Your task to perform on an android device: Search for Mexican restaurants on Maps Image 0: 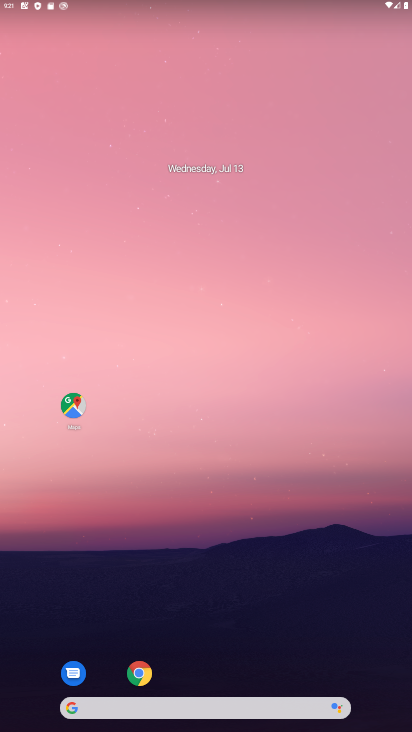
Step 0: click (77, 410)
Your task to perform on an android device: Search for Mexican restaurants on Maps Image 1: 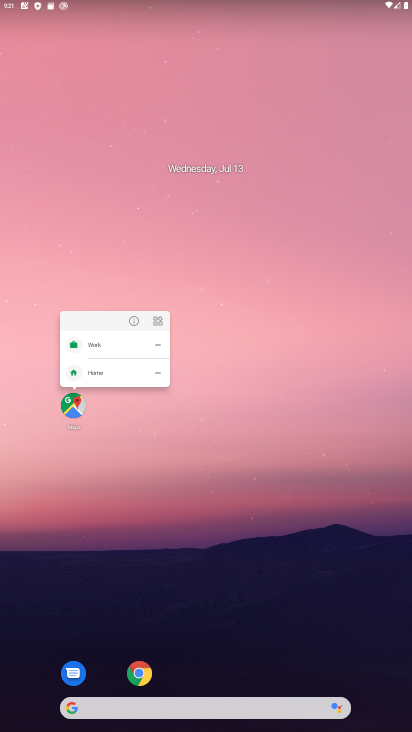
Step 1: click (102, 375)
Your task to perform on an android device: Search for Mexican restaurants on Maps Image 2: 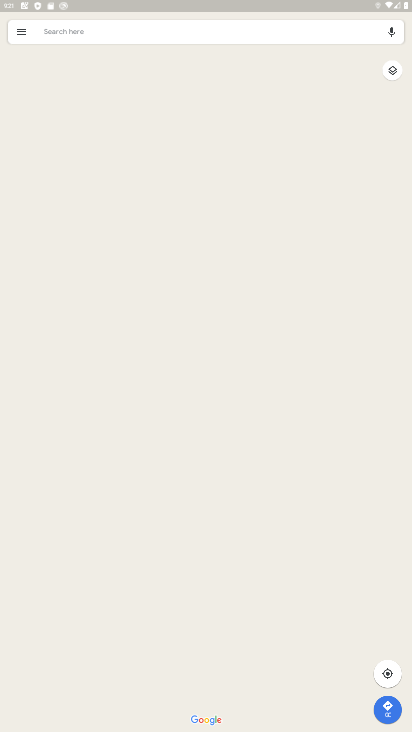
Step 2: click (140, 31)
Your task to perform on an android device: Search for Mexican restaurants on Maps Image 3: 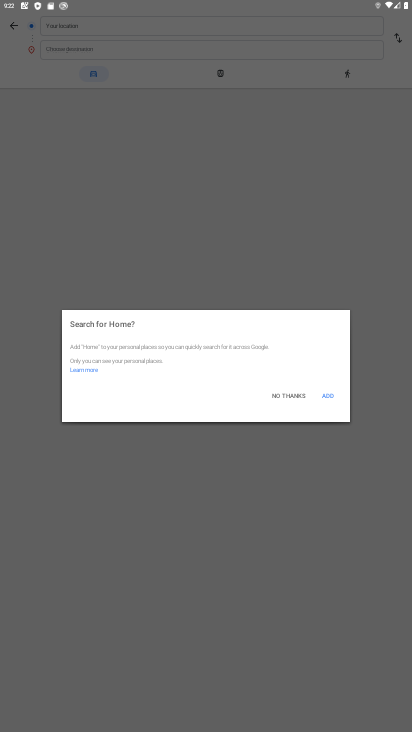
Step 3: click (298, 393)
Your task to perform on an android device: Search for Mexican restaurants on Maps Image 4: 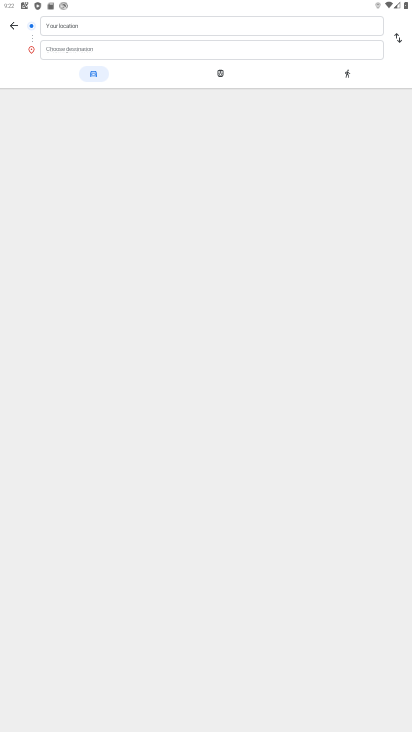
Step 4: click (15, 31)
Your task to perform on an android device: Search for Mexican restaurants on Maps Image 5: 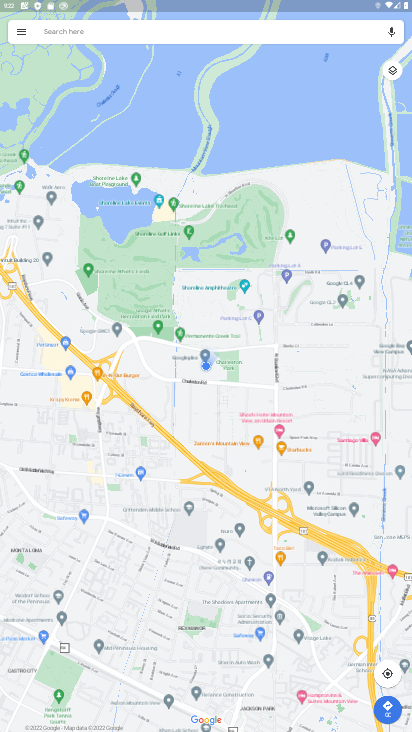
Step 5: click (209, 39)
Your task to perform on an android device: Search for Mexican restaurants on Maps Image 6: 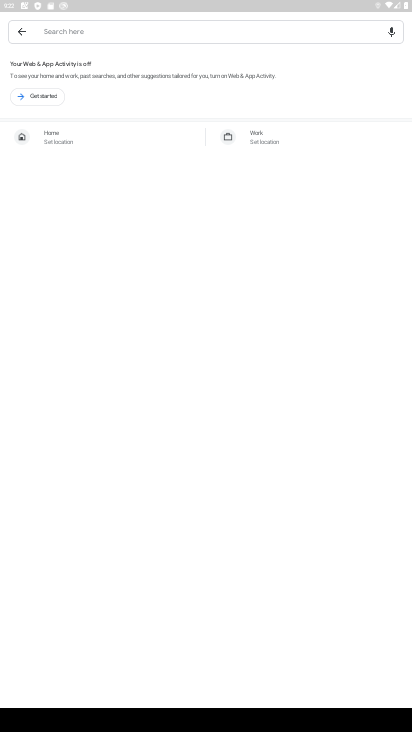
Step 6: type "mexican restaurant"
Your task to perform on an android device: Search for Mexican restaurants on Maps Image 7: 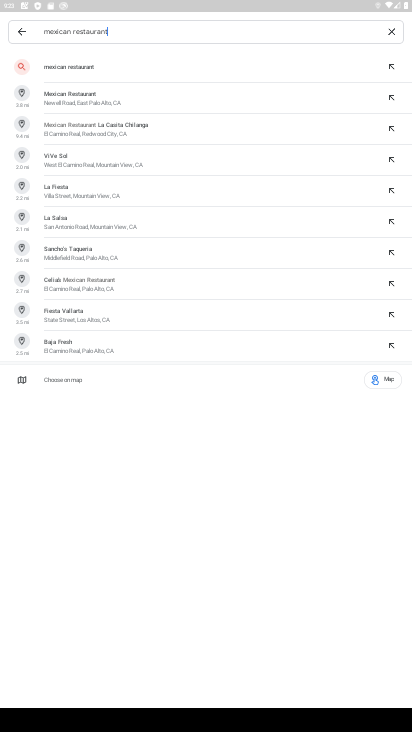
Step 7: click (113, 65)
Your task to perform on an android device: Search for Mexican restaurants on Maps Image 8: 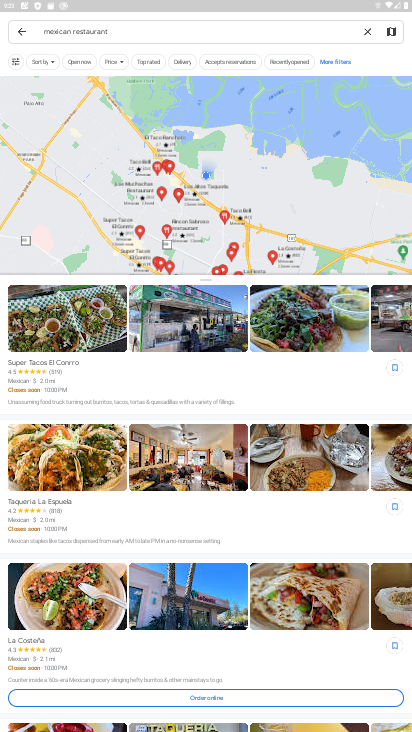
Step 8: task complete